Your task to perform on an android device: What's the weather going to be this weekend? Image 0: 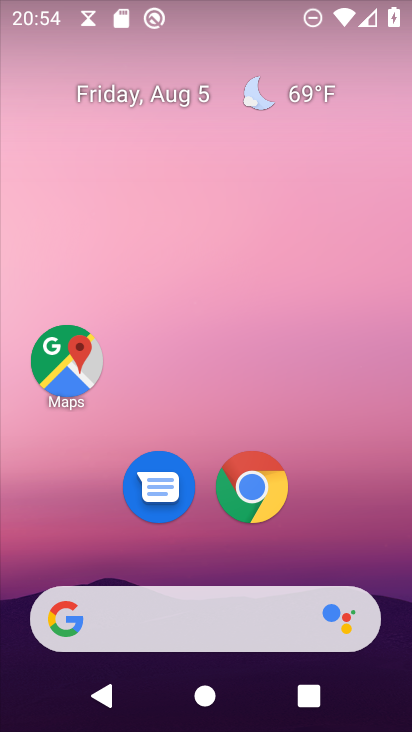
Step 0: click (145, 611)
Your task to perform on an android device: What's the weather going to be this weekend? Image 1: 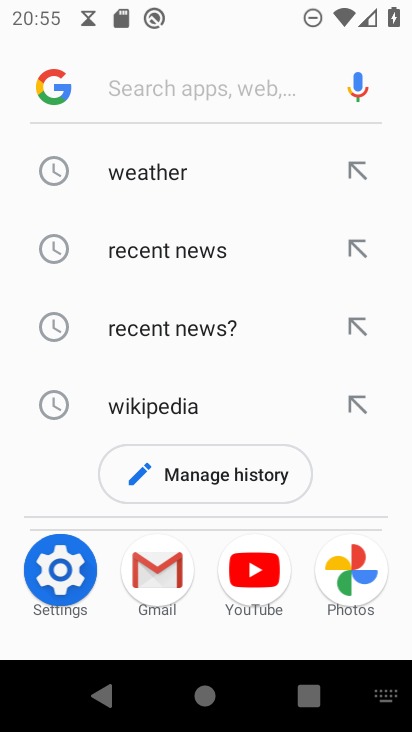
Step 1: click (166, 166)
Your task to perform on an android device: What's the weather going to be this weekend? Image 2: 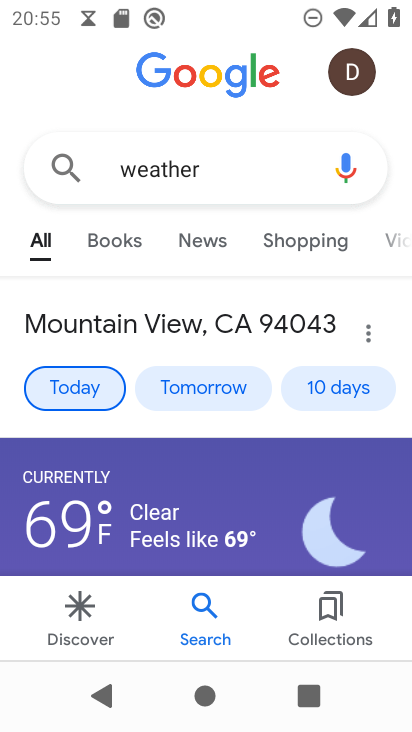
Step 2: click (326, 387)
Your task to perform on an android device: What's the weather going to be this weekend? Image 3: 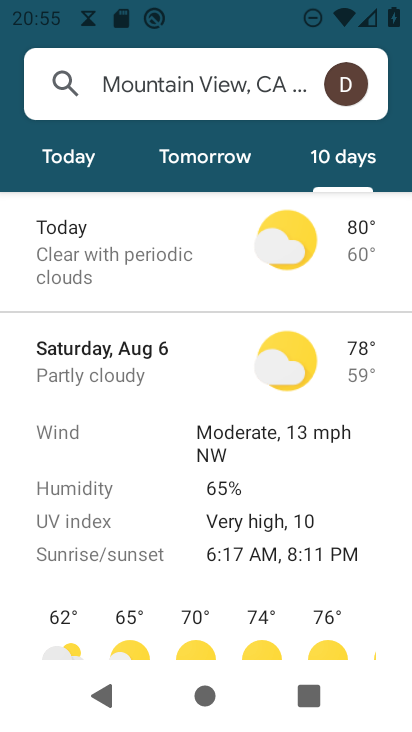
Step 3: task complete